Your task to perform on an android device: Open calendar and show me the fourth week of next month Image 0: 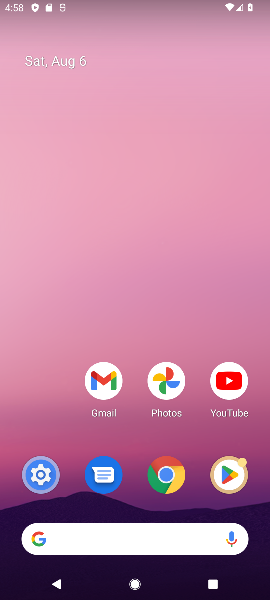
Step 0: drag from (209, 448) to (144, 98)
Your task to perform on an android device: Open calendar and show me the fourth week of next month Image 1: 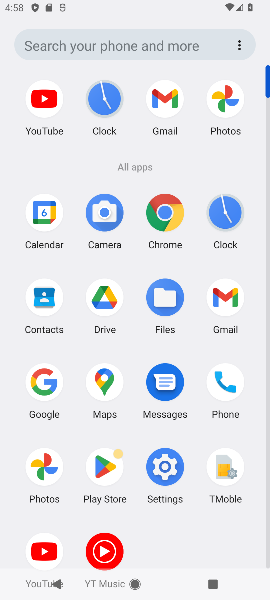
Step 1: click (41, 217)
Your task to perform on an android device: Open calendar and show me the fourth week of next month Image 2: 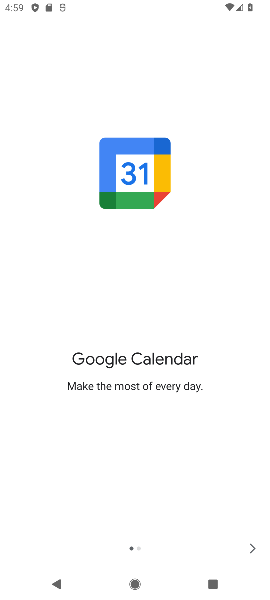
Step 2: click (257, 540)
Your task to perform on an android device: Open calendar and show me the fourth week of next month Image 3: 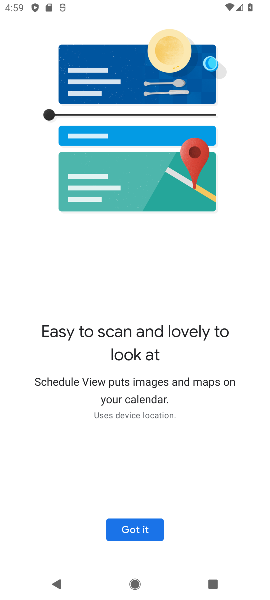
Step 3: click (108, 531)
Your task to perform on an android device: Open calendar and show me the fourth week of next month Image 4: 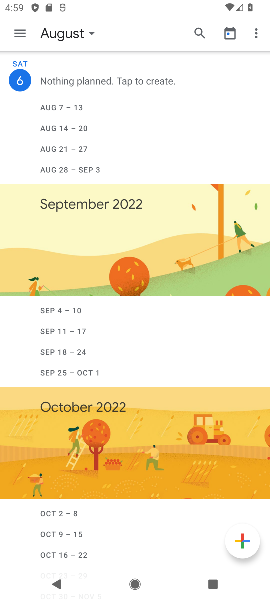
Step 4: click (88, 34)
Your task to perform on an android device: Open calendar and show me the fourth week of next month Image 5: 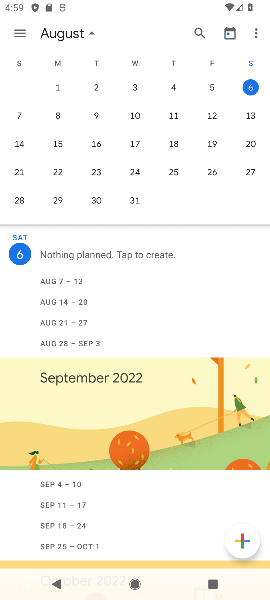
Step 5: drag from (230, 144) to (0, 107)
Your task to perform on an android device: Open calendar and show me the fourth week of next month Image 6: 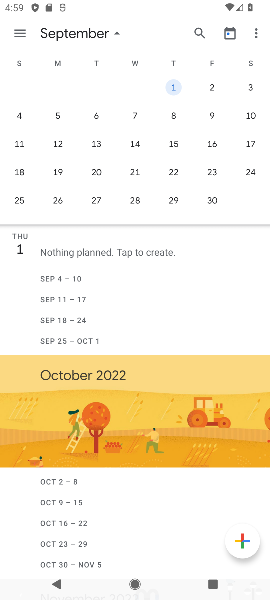
Step 6: click (177, 197)
Your task to perform on an android device: Open calendar and show me the fourth week of next month Image 7: 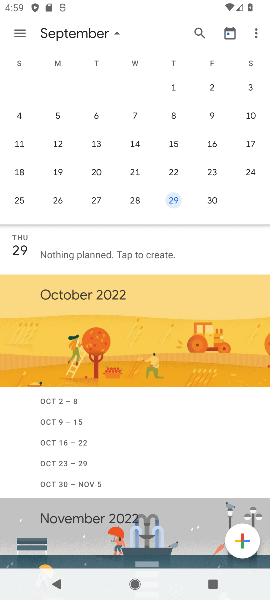
Step 7: click (24, 36)
Your task to perform on an android device: Open calendar and show me the fourth week of next month Image 8: 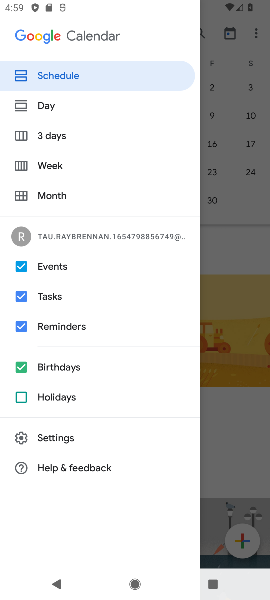
Step 8: click (81, 164)
Your task to perform on an android device: Open calendar and show me the fourth week of next month Image 9: 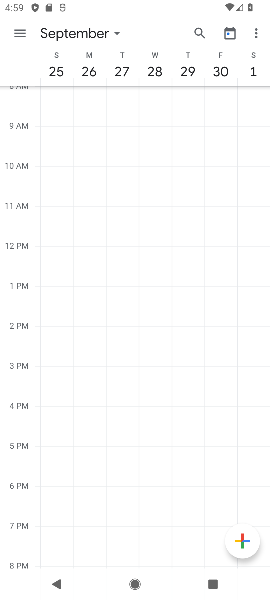
Step 9: task complete